Your task to perform on an android device: Open ESPN.com Image 0: 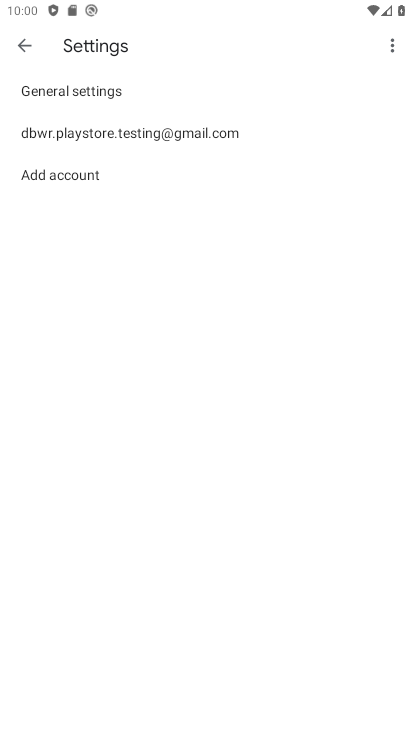
Step 0: press home button
Your task to perform on an android device: Open ESPN.com Image 1: 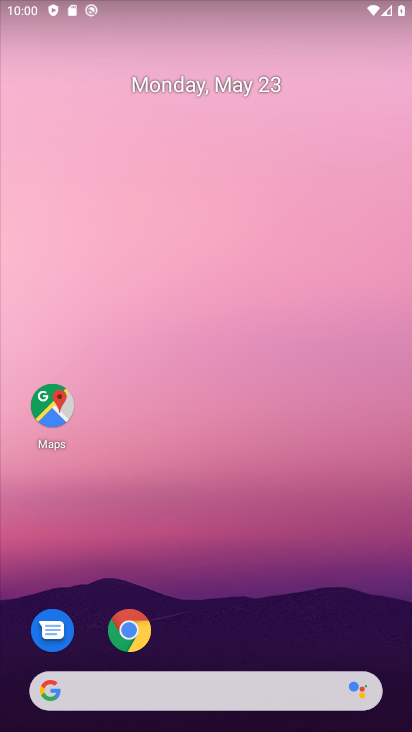
Step 1: click (135, 636)
Your task to perform on an android device: Open ESPN.com Image 2: 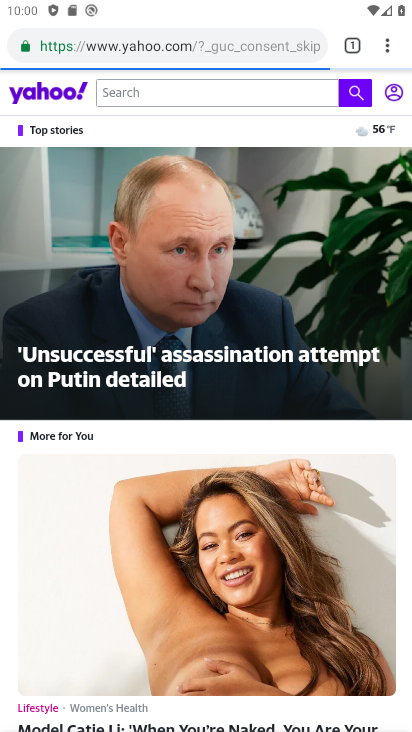
Step 2: click (140, 52)
Your task to perform on an android device: Open ESPN.com Image 3: 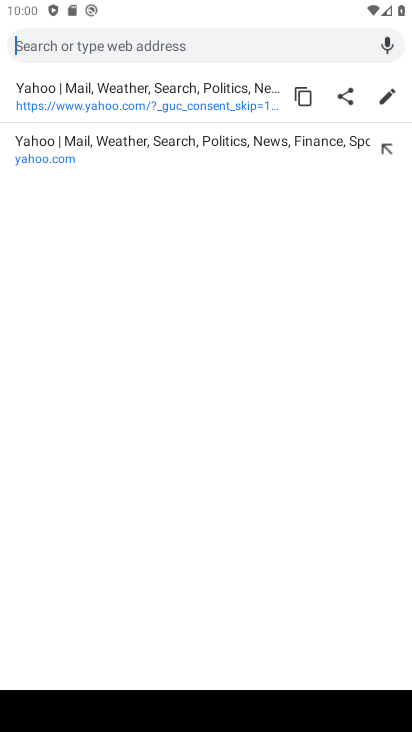
Step 3: type "espn.com"
Your task to perform on an android device: Open ESPN.com Image 4: 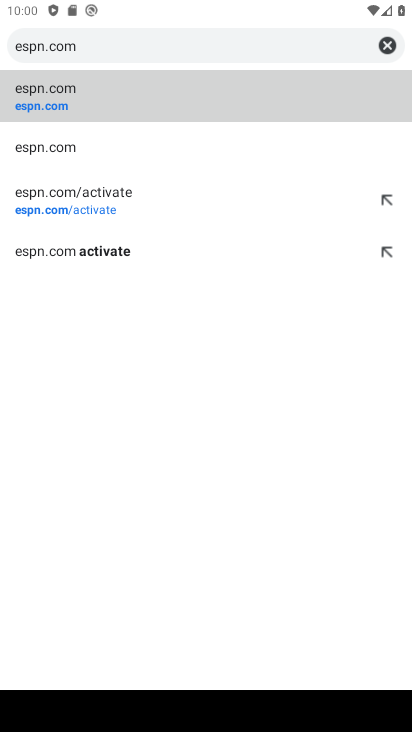
Step 4: click (20, 96)
Your task to perform on an android device: Open ESPN.com Image 5: 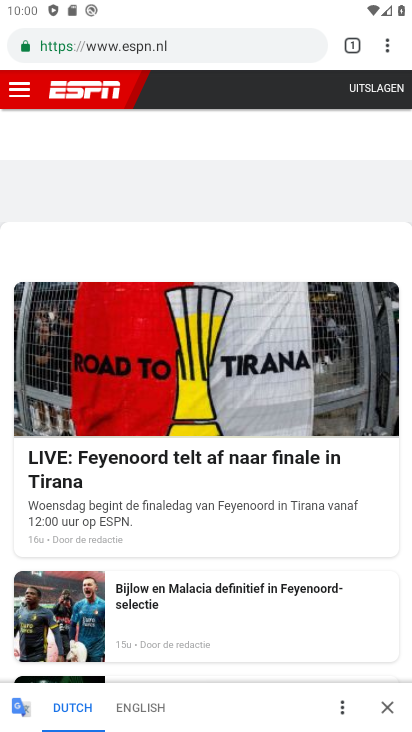
Step 5: task complete